Your task to perform on an android device: make emails show in primary in the gmail app Image 0: 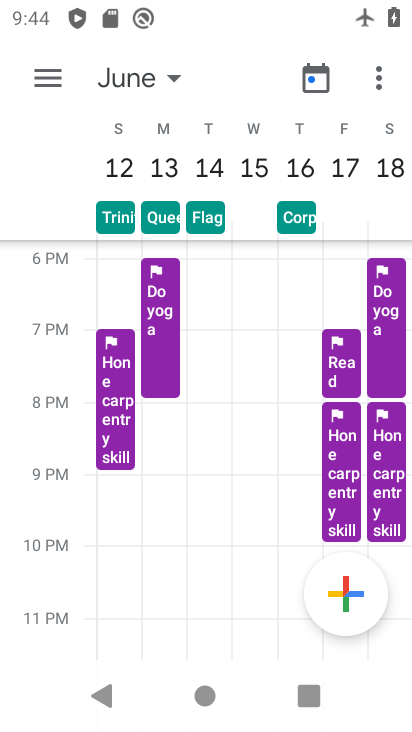
Step 0: press home button
Your task to perform on an android device: make emails show in primary in the gmail app Image 1: 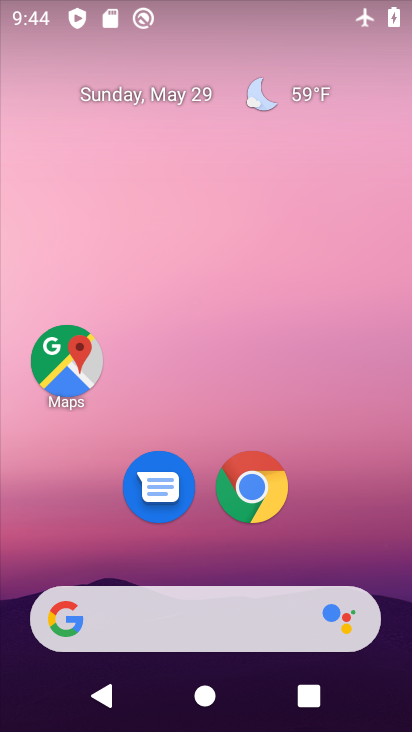
Step 1: drag from (382, 703) to (345, 252)
Your task to perform on an android device: make emails show in primary in the gmail app Image 2: 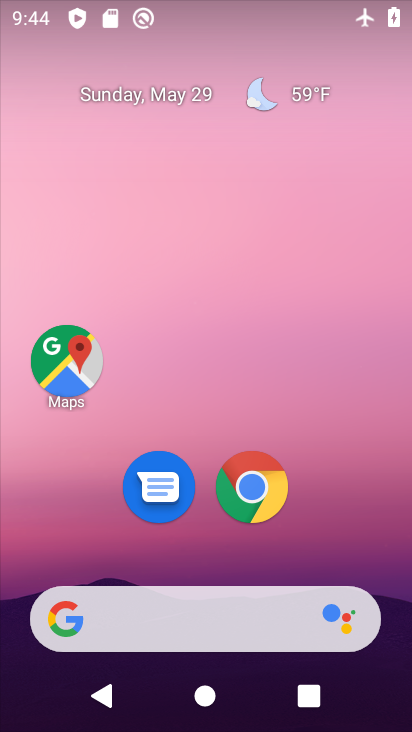
Step 2: drag from (372, 636) to (299, 100)
Your task to perform on an android device: make emails show in primary in the gmail app Image 3: 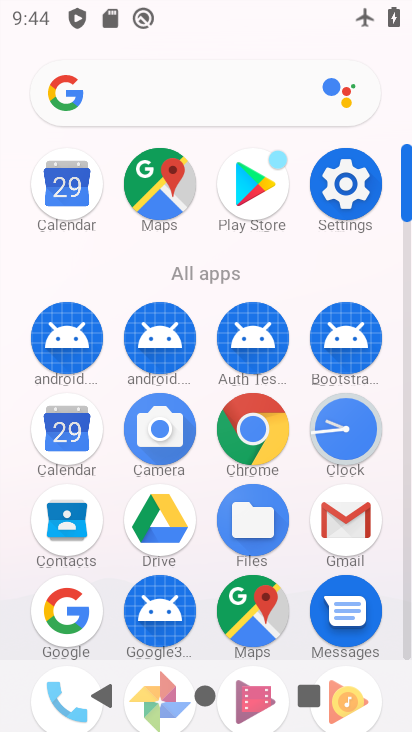
Step 3: click (324, 525)
Your task to perform on an android device: make emails show in primary in the gmail app Image 4: 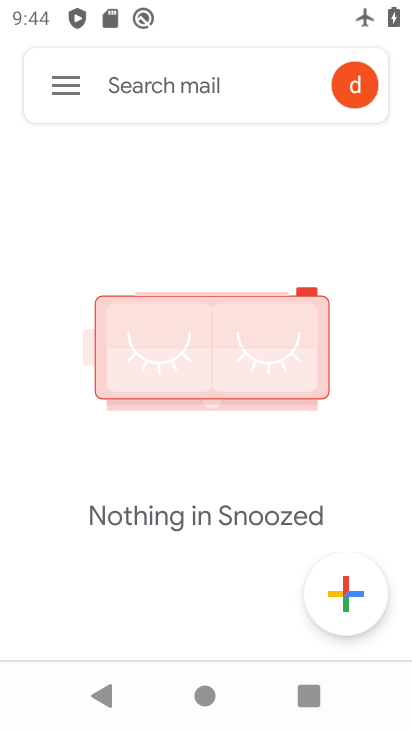
Step 4: click (56, 79)
Your task to perform on an android device: make emails show in primary in the gmail app Image 5: 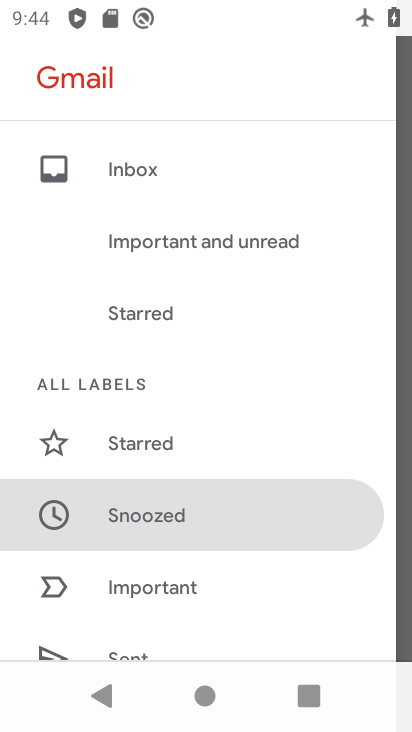
Step 5: drag from (251, 636) to (240, 247)
Your task to perform on an android device: make emails show in primary in the gmail app Image 6: 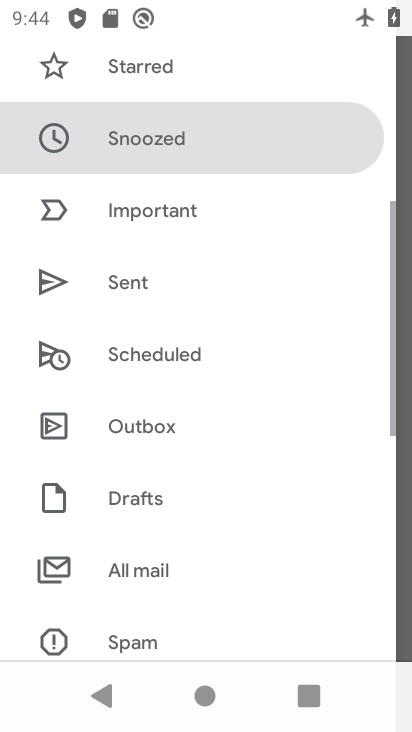
Step 6: drag from (295, 617) to (284, 330)
Your task to perform on an android device: make emails show in primary in the gmail app Image 7: 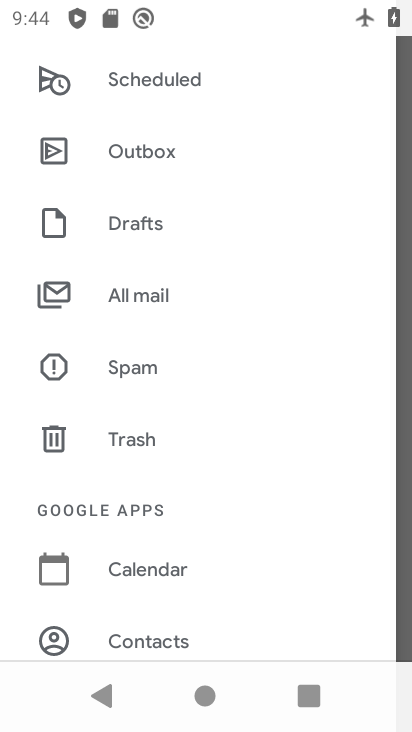
Step 7: drag from (253, 645) to (309, 278)
Your task to perform on an android device: make emails show in primary in the gmail app Image 8: 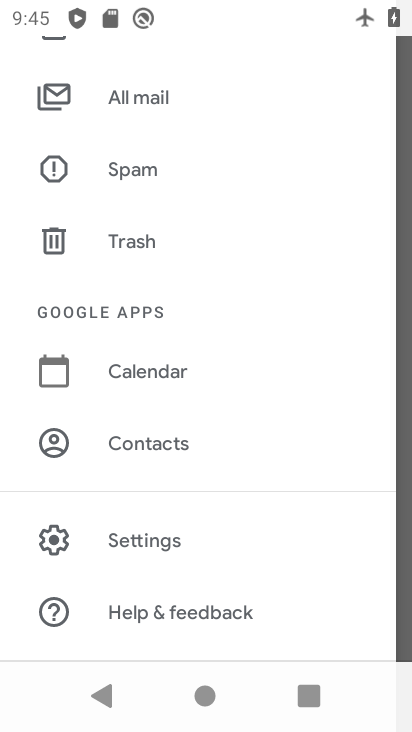
Step 8: click (106, 530)
Your task to perform on an android device: make emails show in primary in the gmail app Image 9: 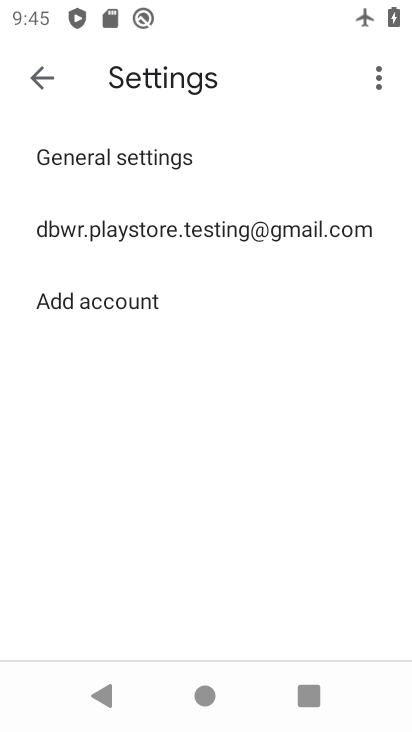
Step 9: click (70, 227)
Your task to perform on an android device: make emails show in primary in the gmail app Image 10: 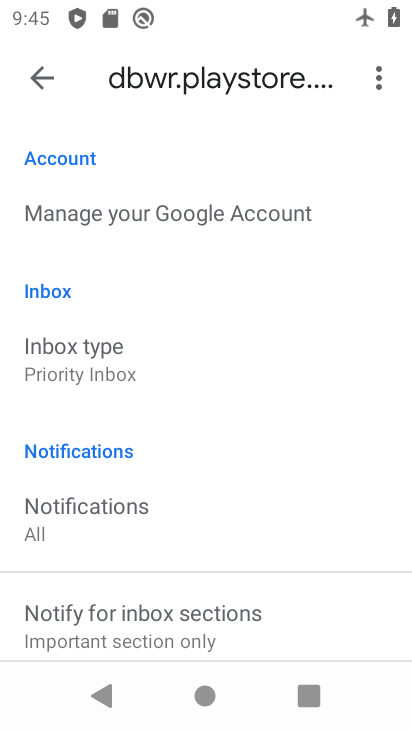
Step 10: click (92, 335)
Your task to perform on an android device: make emails show in primary in the gmail app Image 11: 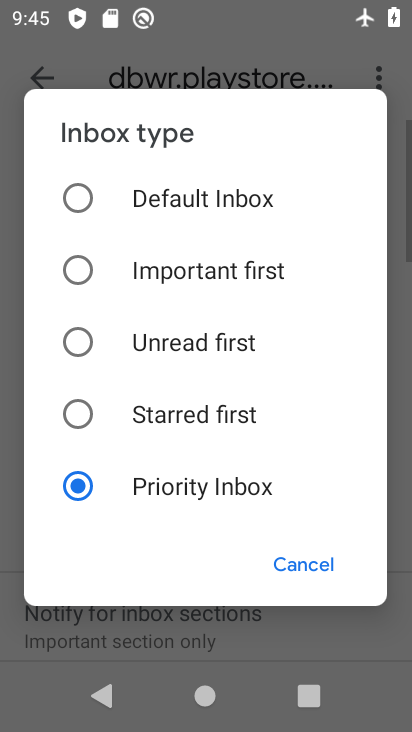
Step 11: click (82, 197)
Your task to perform on an android device: make emails show in primary in the gmail app Image 12: 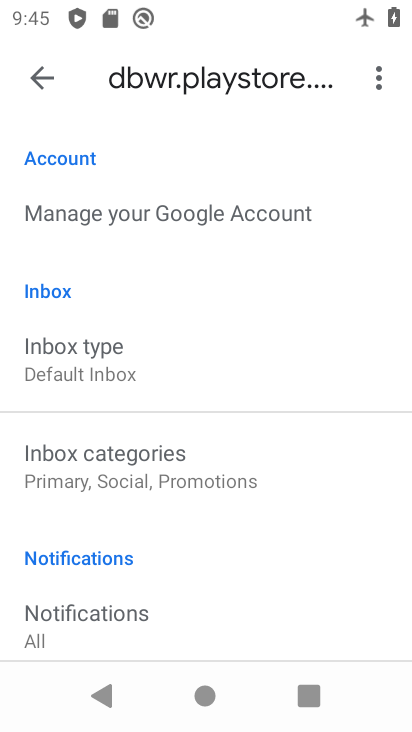
Step 12: click (75, 467)
Your task to perform on an android device: make emails show in primary in the gmail app Image 13: 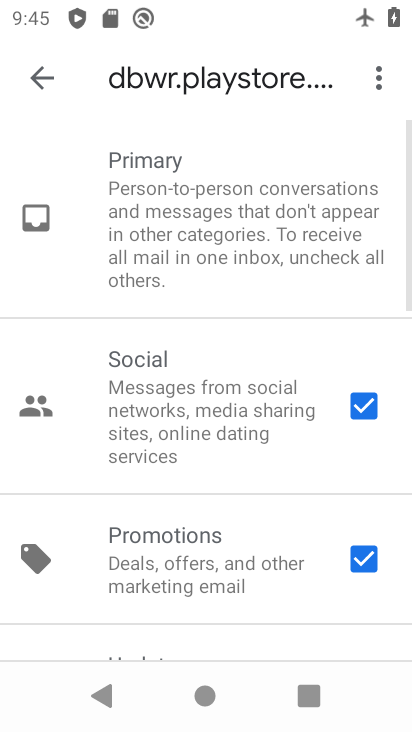
Step 13: click (367, 399)
Your task to perform on an android device: make emails show in primary in the gmail app Image 14: 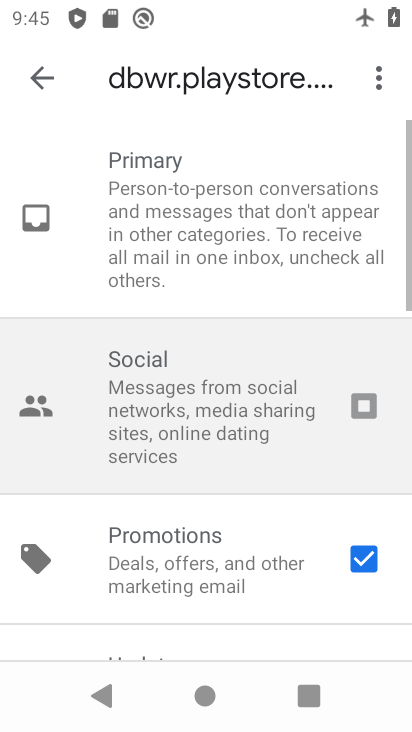
Step 14: click (356, 556)
Your task to perform on an android device: make emails show in primary in the gmail app Image 15: 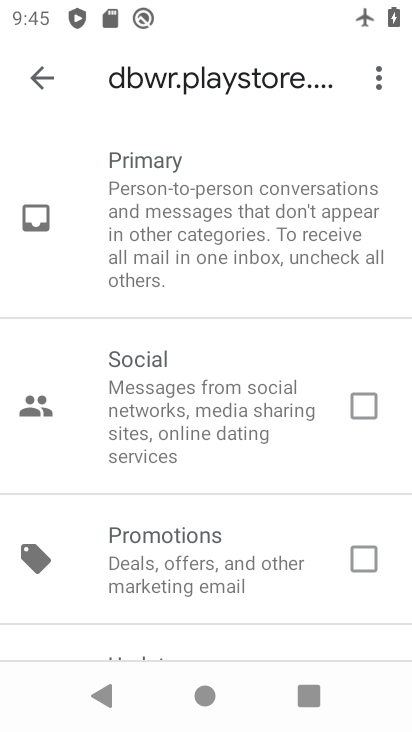
Step 15: task complete